Your task to perform on an android device: toggle location history Image 0: 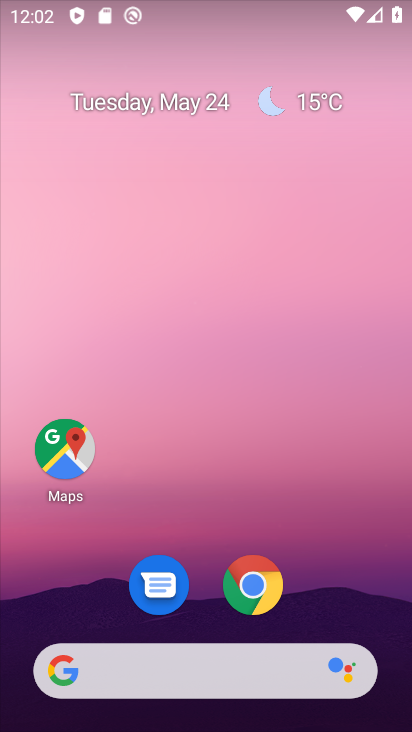
Step 0: drag from (244, 488) to (308, 29)
Your task to perform on an android device: toggle location history Image 1: 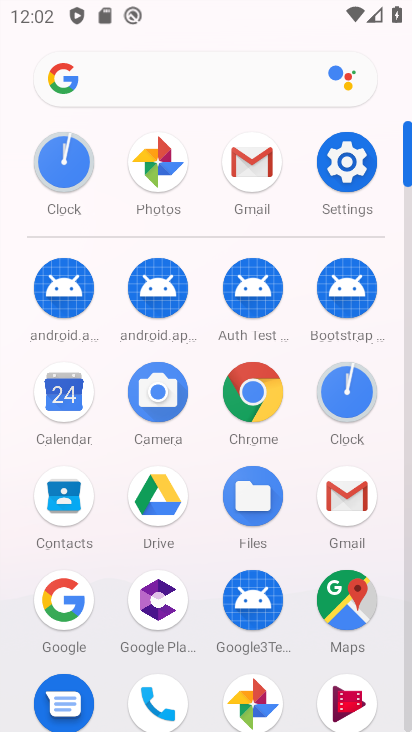
Step 1: click (339, 170)
Your task to perform on an android device: toggle location history Image 2: 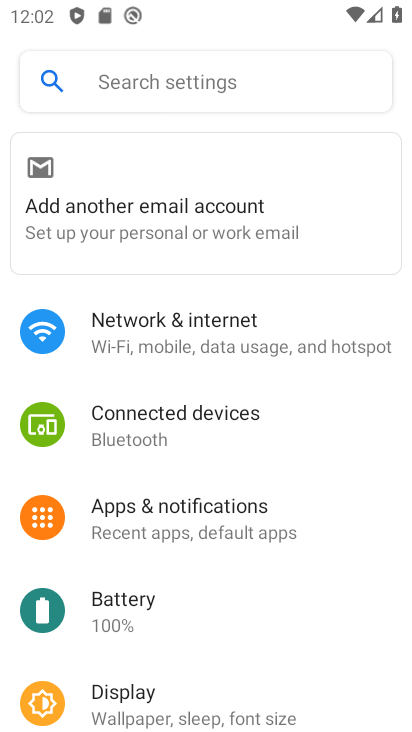
Step 2: drag from (220, 631) to (252, 113)
Your task to perform on an android device: toggle location history Image 3: 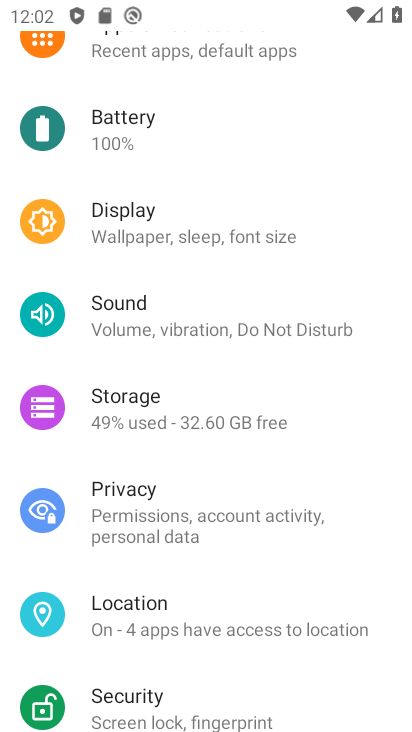
Step 3: click (208, 614)
Your task to perform on an android device: toggle location history Image 4: 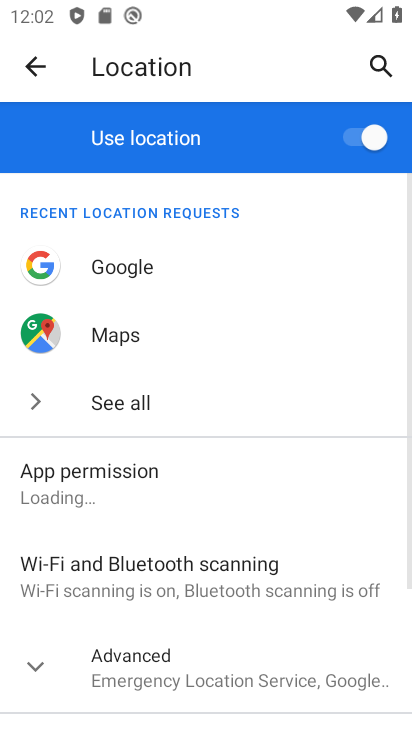
Step 4: drag from (230, 646) to (247, 352)
Your task to perform on an android device: toggle location history Image 5: 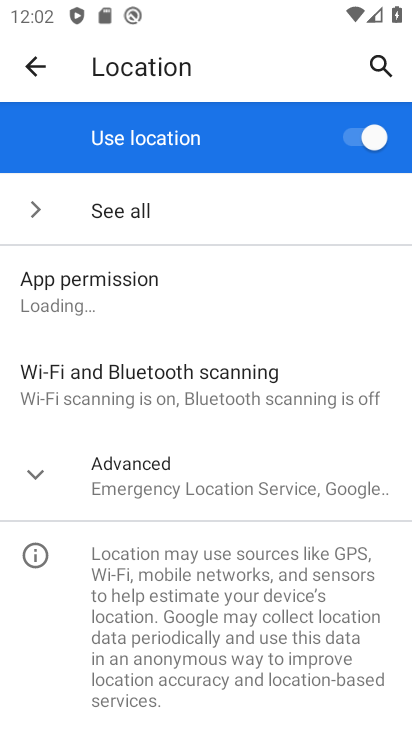
Step 5: click (39, 476)
Your task to perform on an android device: toggle location history Image 6: 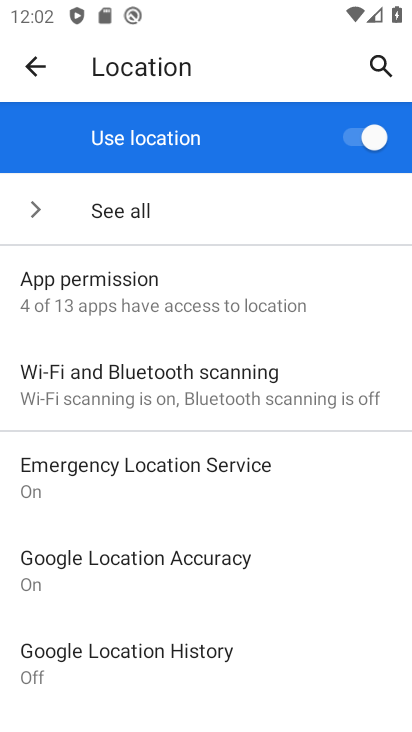
Step 6: click (200, 655)
Your task to perform on an android device: toggle location history Image 7: 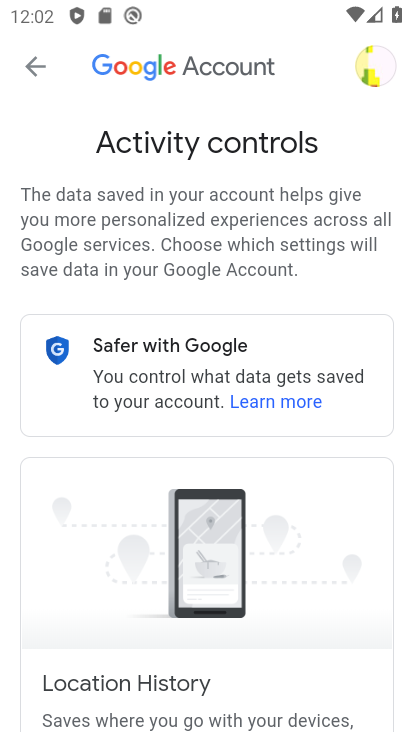
Step 7: drag from (279, 587) to (270, 201)
Your task to perform on an android device: toggle location history Image 8: 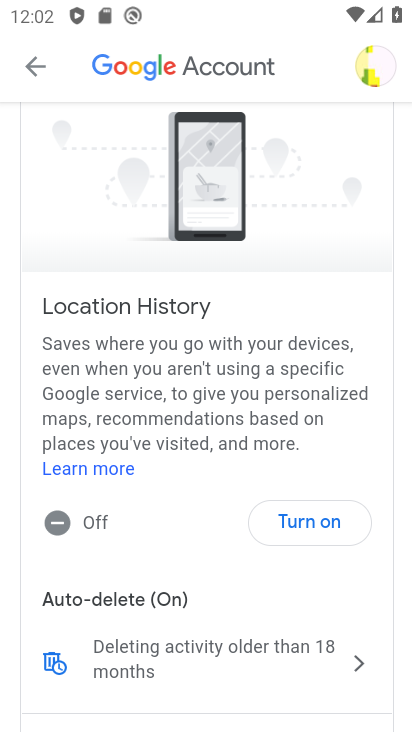
Step 8: click (318, 523)
Your task to perform on an android device: toggle location history Image 9: 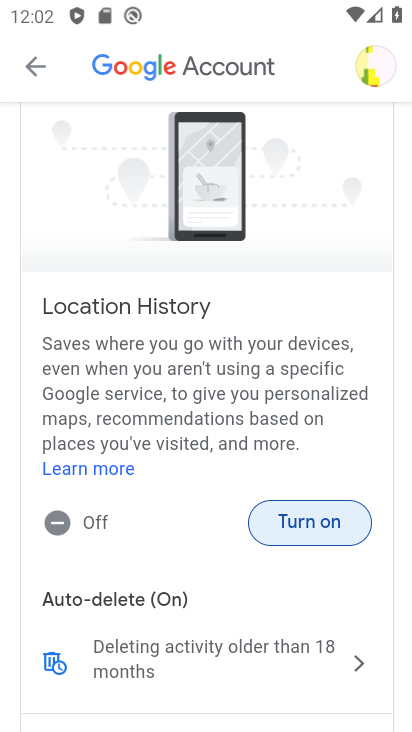
Step 9: click (325, 513)
Your task to perform on an android device: toggle location history Image 10: 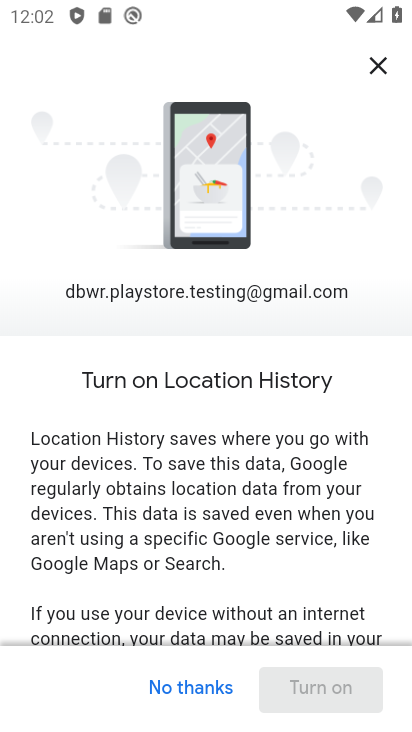
Step 10: drag from (316, 568) to (347, 124)
Your task to perform on an android device: toggle location history Image 11: 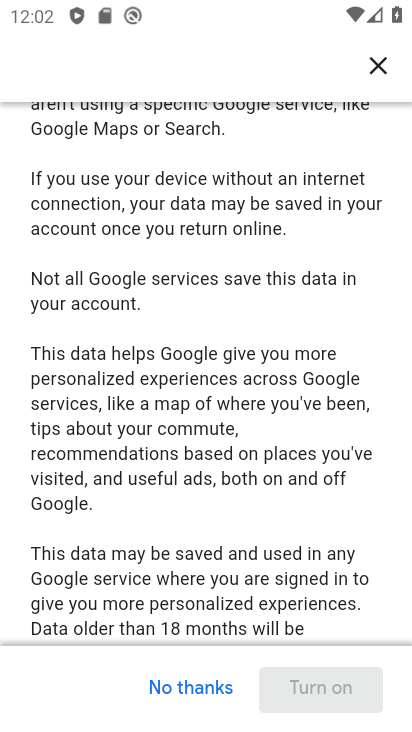
Step 11: drag from (284, 513) to (303, 173)
Your task to perform on an android device: toggle location history Image 12: 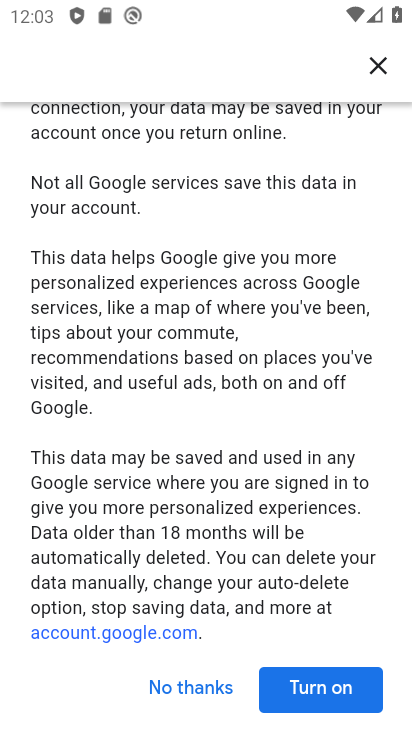
Step 12: click (325, 688)
Your task to perform on an android device: toggle location history Image 13: 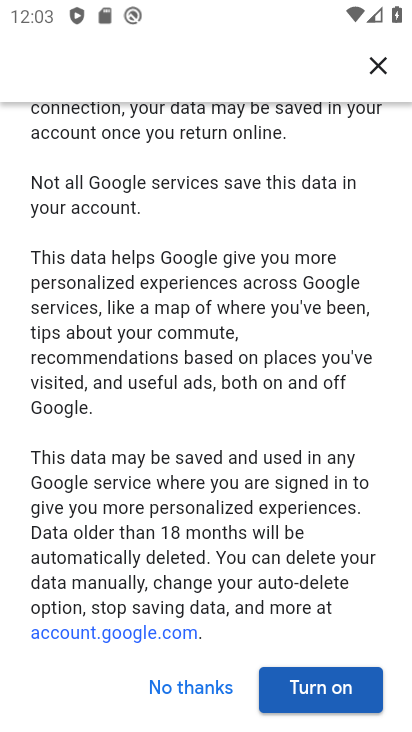
Step 13: click (325, 687)
Your task to perform on an android device: toggle location history Image 14: 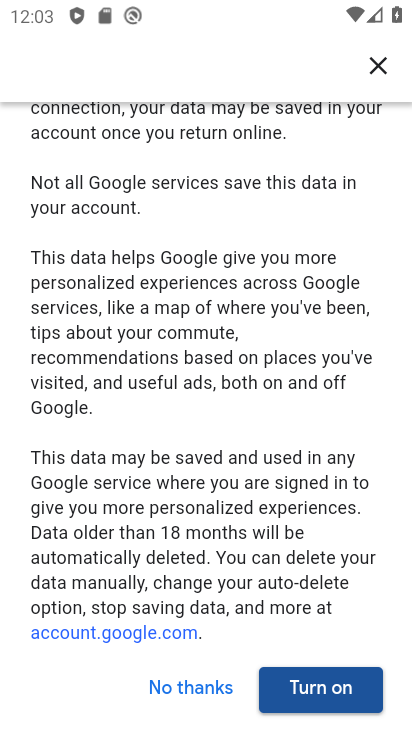
Step 14: click (325, 687)
Your task to perform on an android device: toggle location history Image 15: 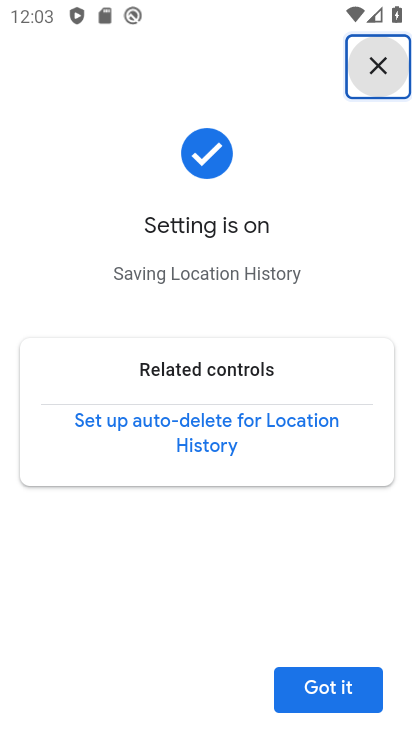
Step 15: click (325, 687)
Your task to perform on an android device: toggle location history Image 16: 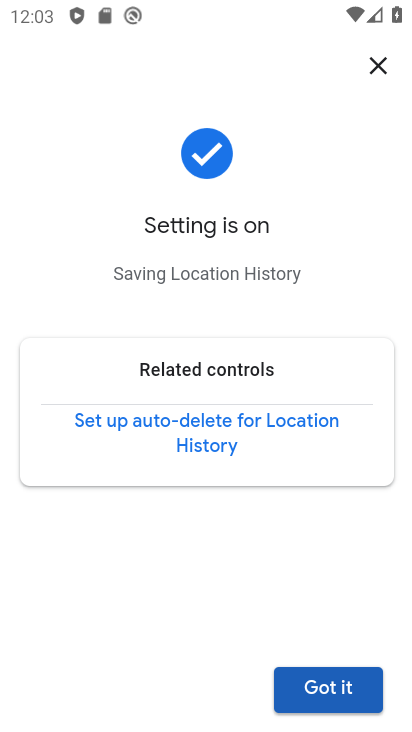
Step 16: click (325, 685)
Your task to perform on an android device: toggle location history Image 17: 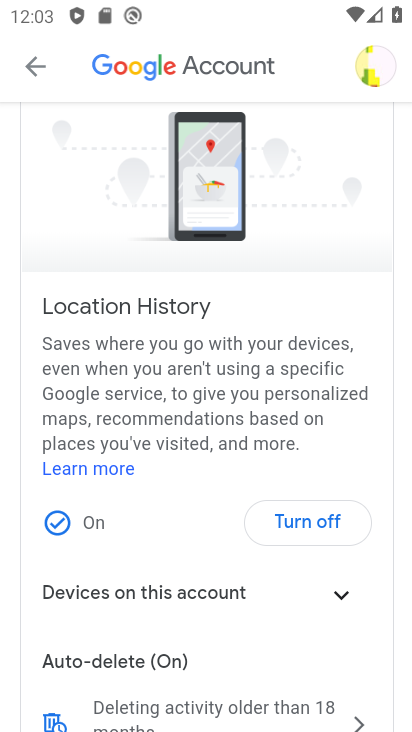
Step 17: click (39, 52)
Your task to perform on an android device: toggle location history Image 18: 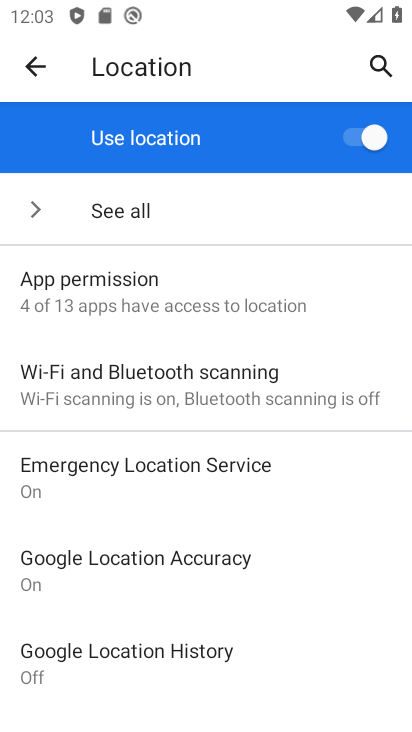
Step 18: click (220, 660)
Your task to perform on an android device: toggle location history Image 19: 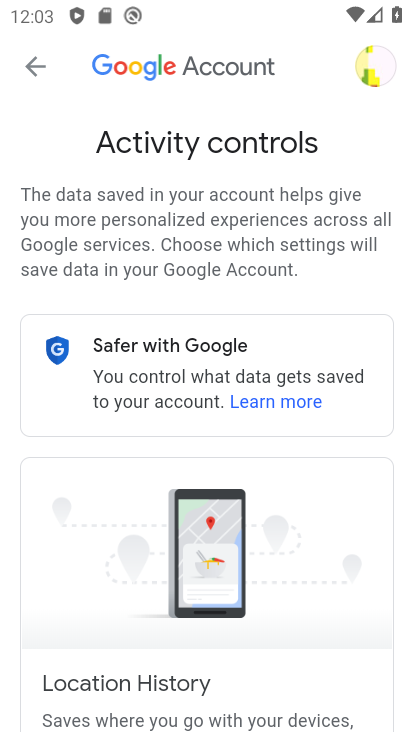
Step 19: drag from (227, 684) to (283, 168)
Your task to perform on an android device: toggle location history Image 20: 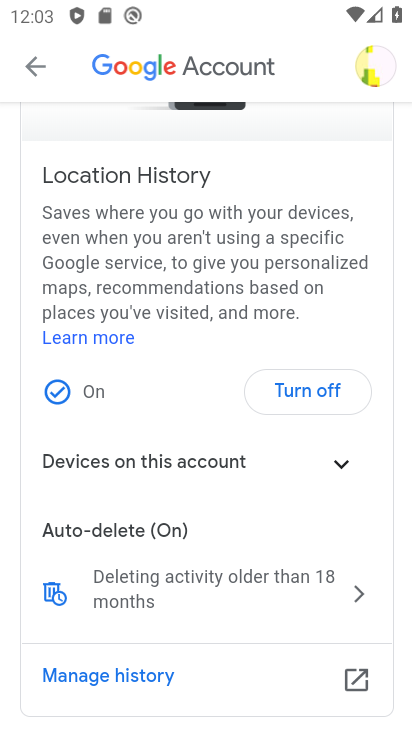
Step 20: click (38, 65)
Your task to perform on an android device: toggle location history Image 21: 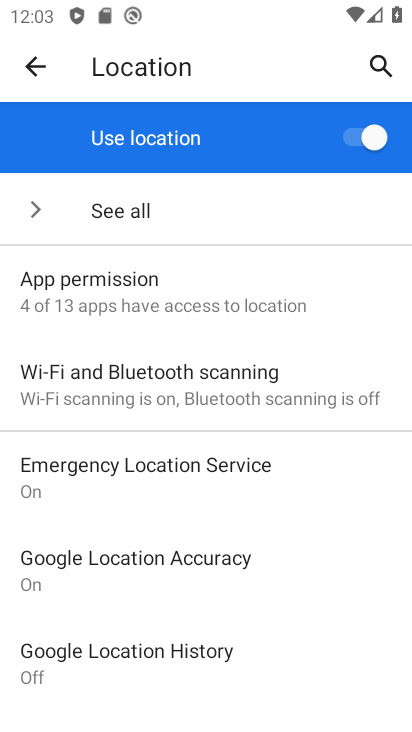
Step 21: task complete